Your task to perform on an android device: turn on wifi Image 0: 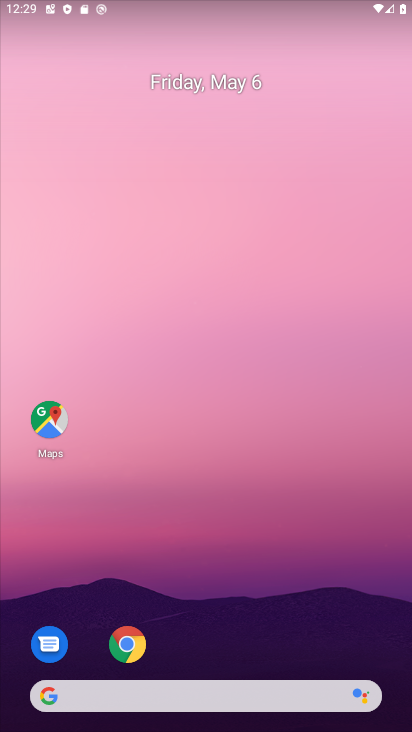
Step 0: drag from (318, 645) to (341, 303)
Your task to perform on an android device: turn on wifi Image 1: 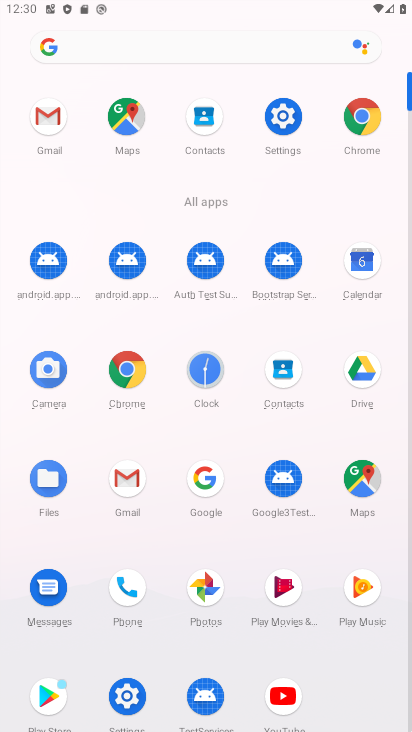
Step 1: click (277, 117)
Your task to perform on an android device: turn on wifi Image 2: 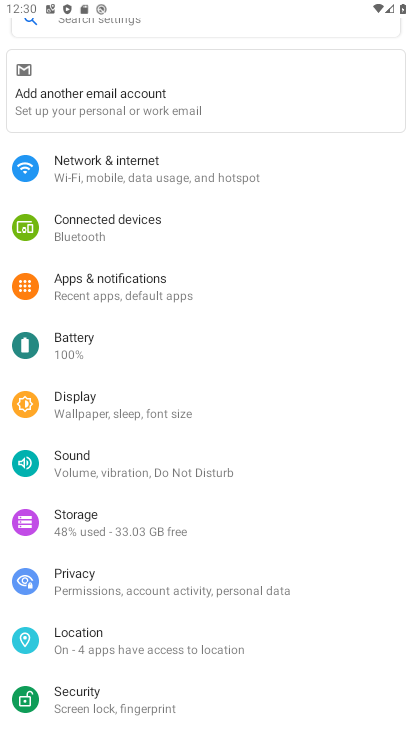
Step 2: click (117, 173)
Your task to perform on an android device: turn on wifi Image 3: 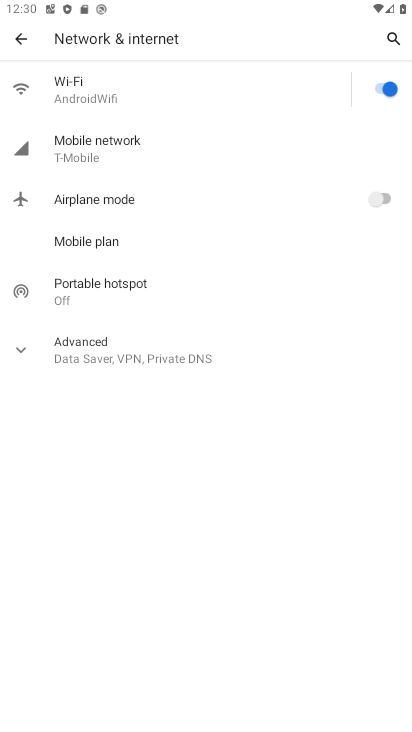
Step 3: task complete